Your task to perform on an android device: empty trash in the gmail app Image 0: 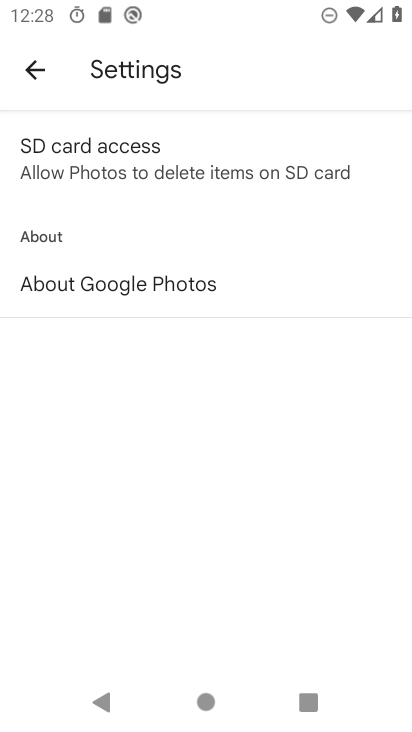
Step 0: press home button
Your task to perform on an android device: empty trash in the gmail app Image 1: 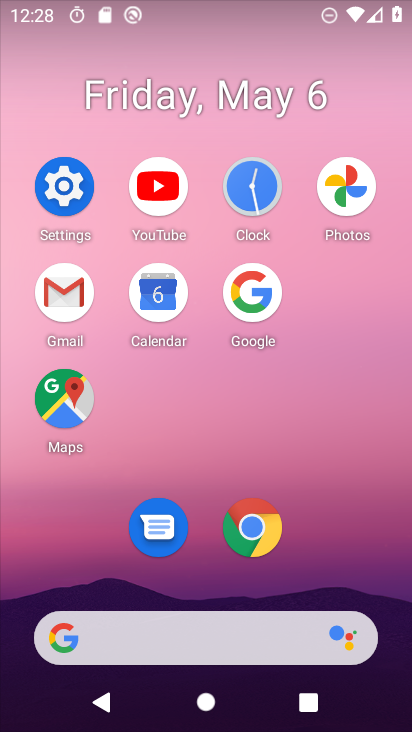
Step 1: click (76, 300)
Your task to perform on an android device: empty trash in the gmail app Image 2: 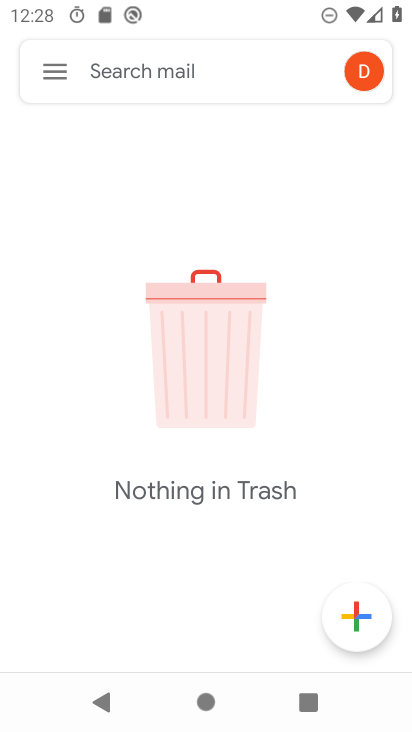
Step 2: click (78, 76)
Your task to perform on an android device: empty trash in the gmail app Image 3: 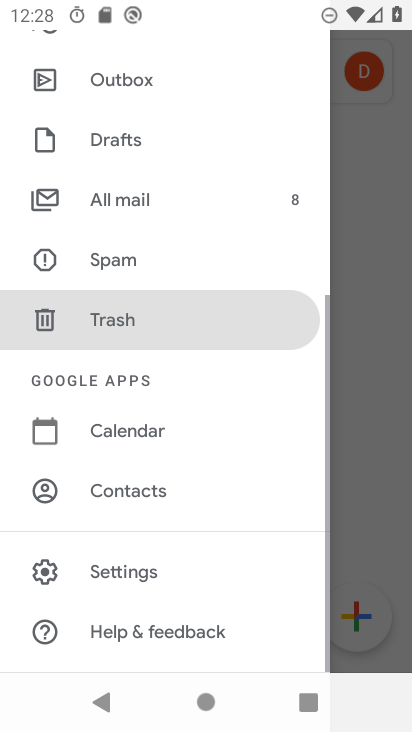
Step 3: click (132, 323)
Your task to perform on an android device: empty trash in the gmail app Image 4: 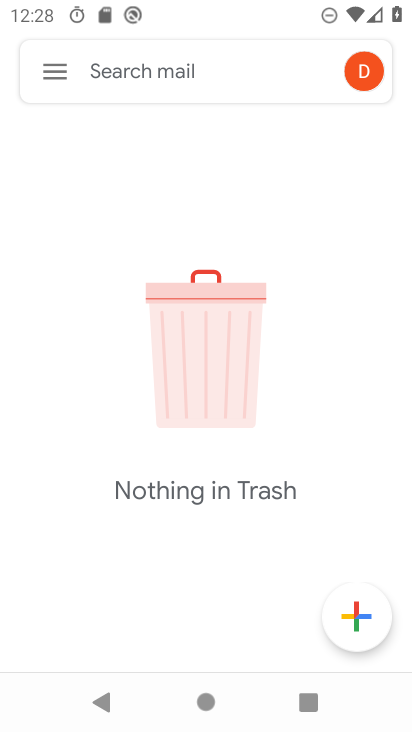
Step 4: task complete